Your task to perform on an android device: What's the weather? Image 0: 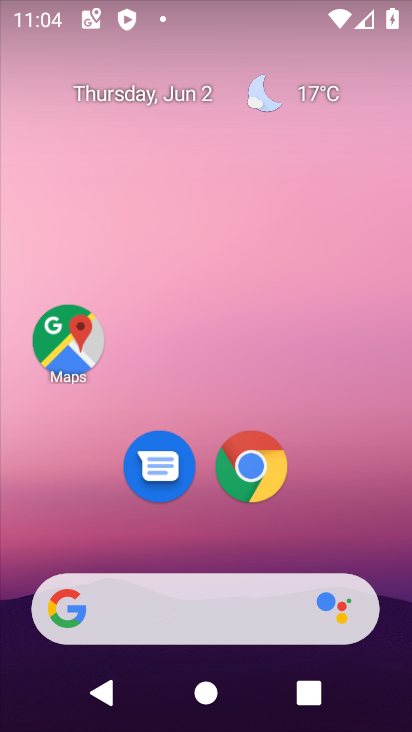
Step 0: click (246, 473)
Your task to perform on an android device: What's the weather? Image 1: 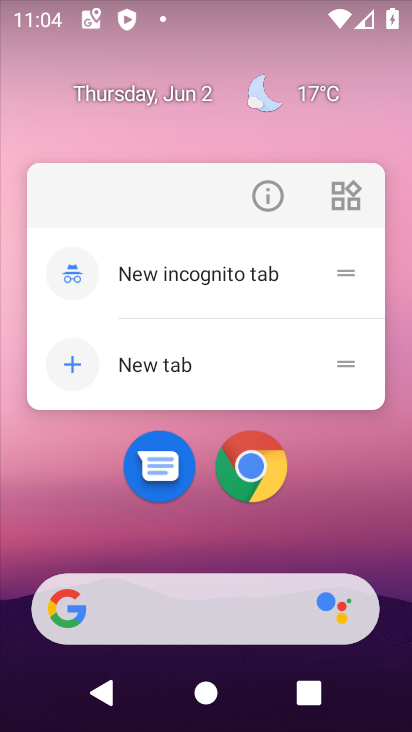
Step 1: click (238, 460)
Your task to perform on an android device: What's the weather? Image 2: 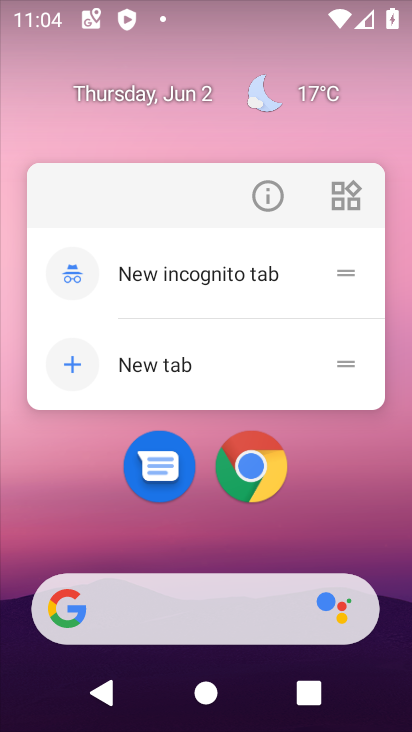
Step 2: click (240, 338)
Your task to perform on an android device: What's the weather? Image 3: 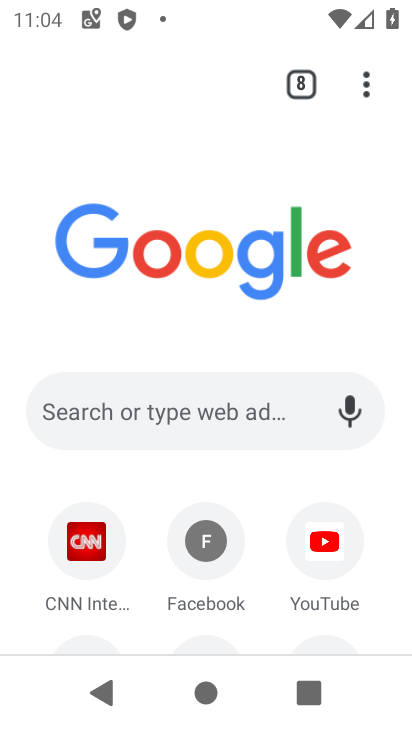
Step 3: click (224, 357)
Your task to perform on an android device: What's the weather? Image 4: 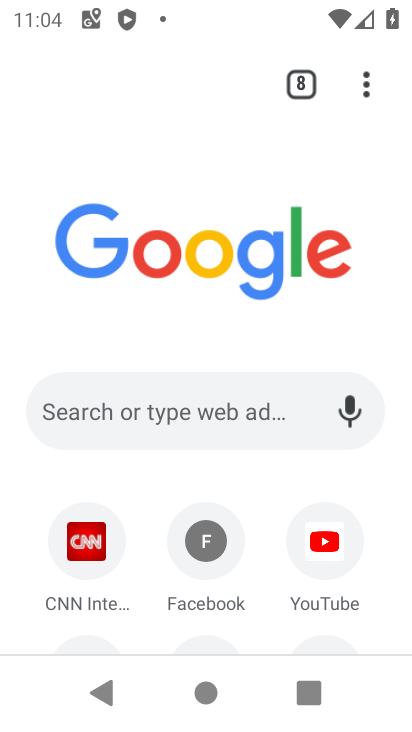
Step 4: click (197, 382)
Your task to perform on an android device: What's the weather? Image 5: 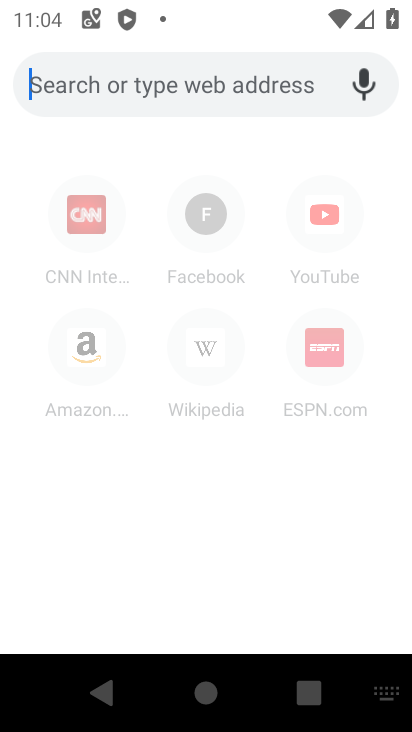
Step 5: click (183, 68)
Your task to perform on an android device: What's the weather? Image 6: 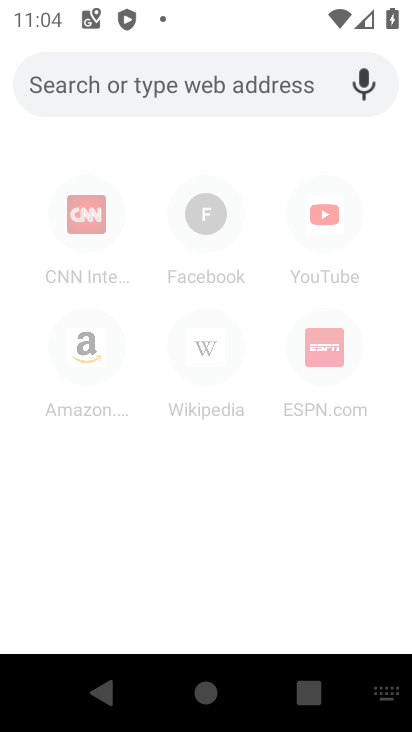
Step 6: type ""
Your task to perform on an android device: What's the weather? Image 7: 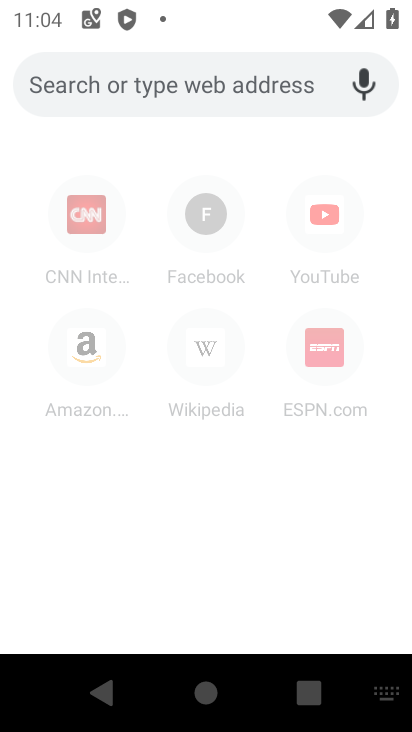
Step 7: click (197, 64)
Your task to perform on an android device: What's the weather? Image 8: 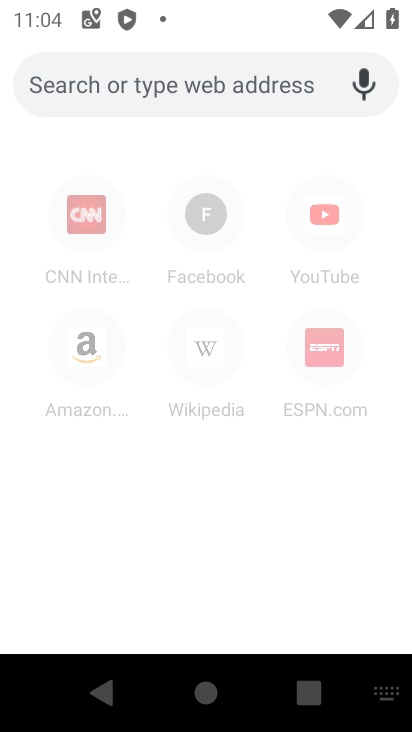
Step 8: type "What's the weather?"
Your task to perform on an android device: What's the weather? Image 9: 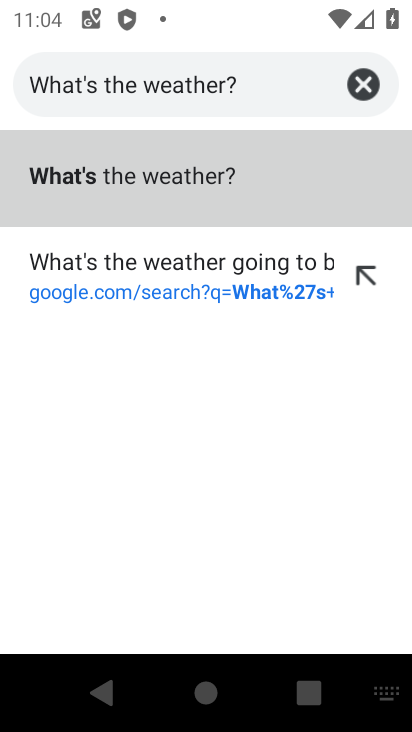
Step 9: click (224, 164)
Your task to perform on an android device: What's the weather? Image 10: 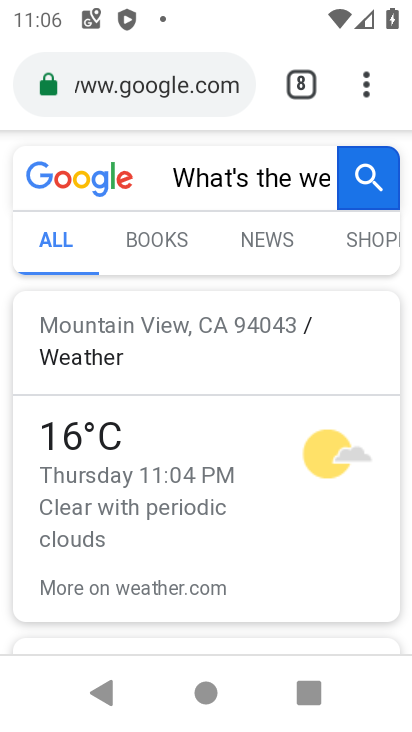
Step 10: task complete